Your task to perform on an android device: turn off location history Image 0: 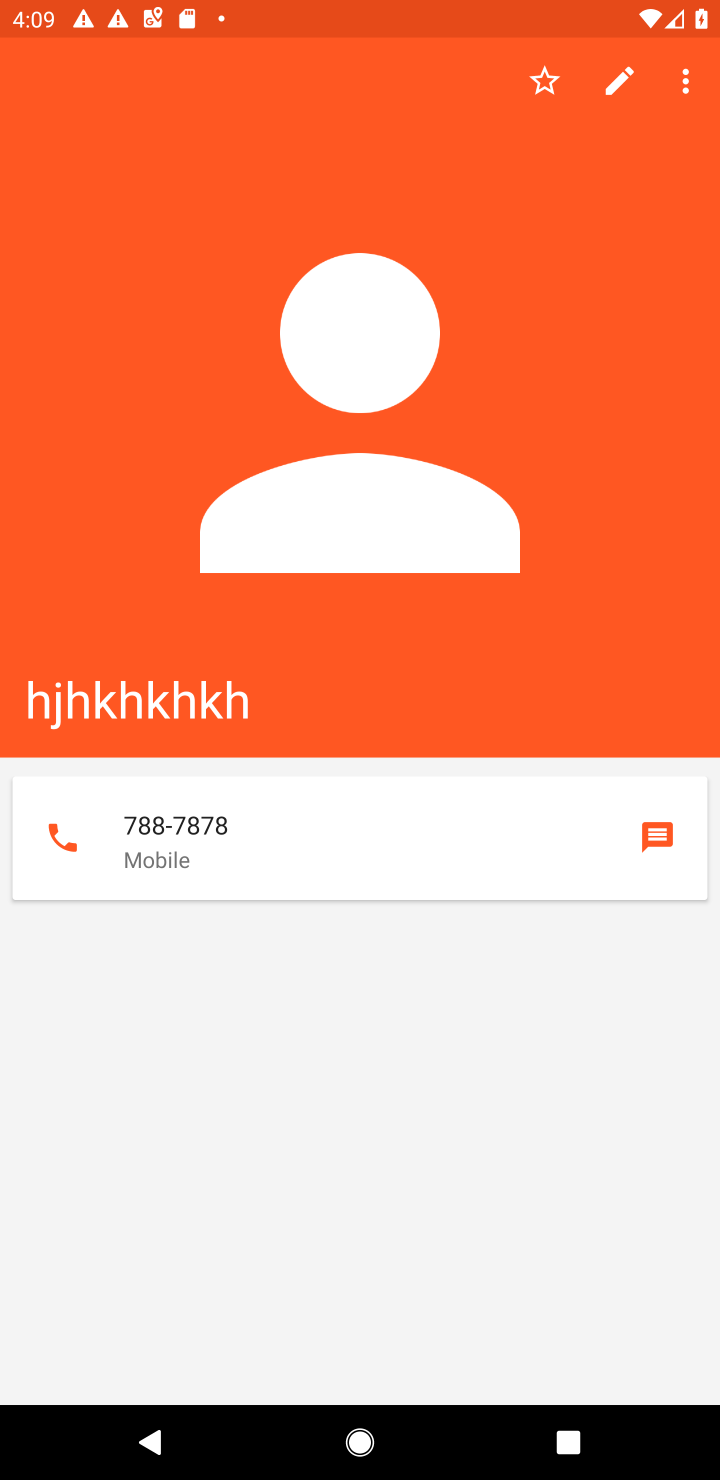
Step 0: press home button
Your task to perform on an android device: turn off location history Image 1: 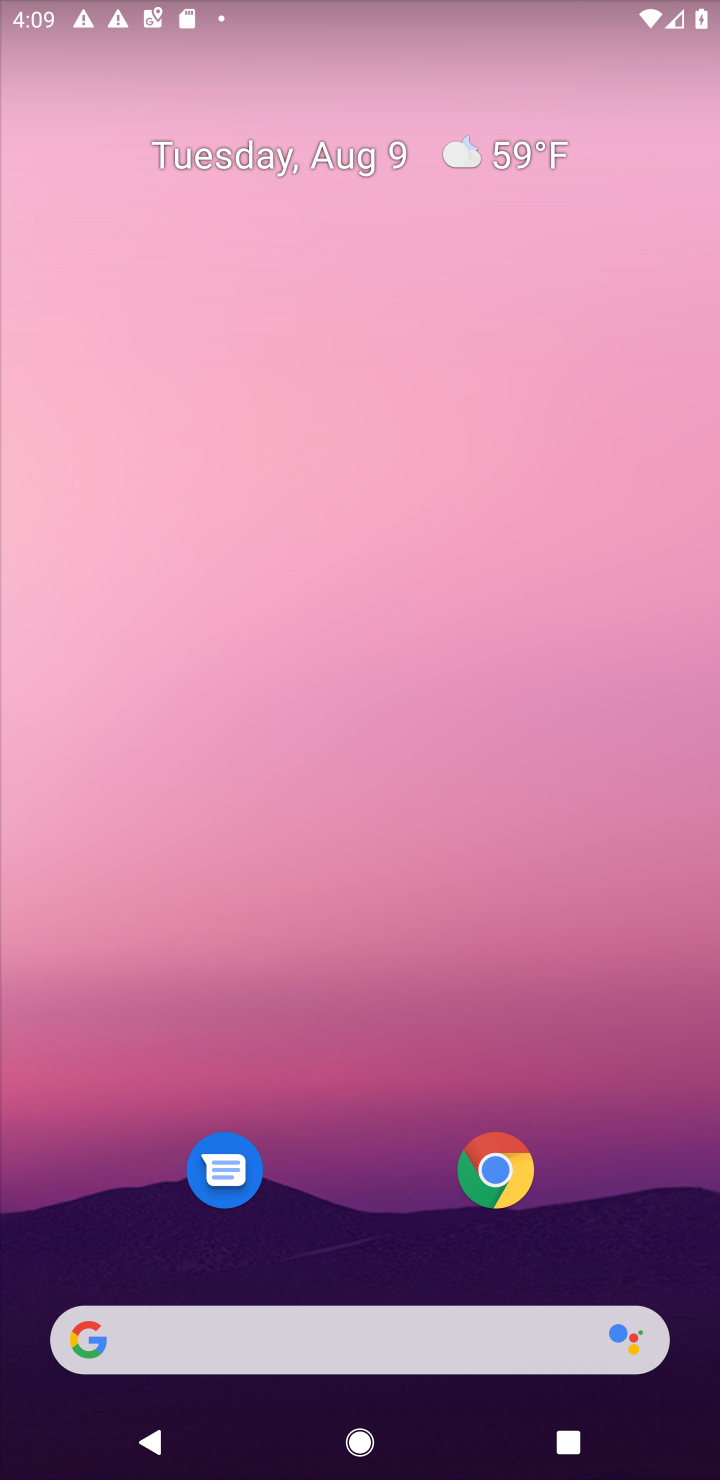
Step 1: drag from (335, 1203) to (265, 0)
Your task to perform on an android device: turn off location history Image 2: 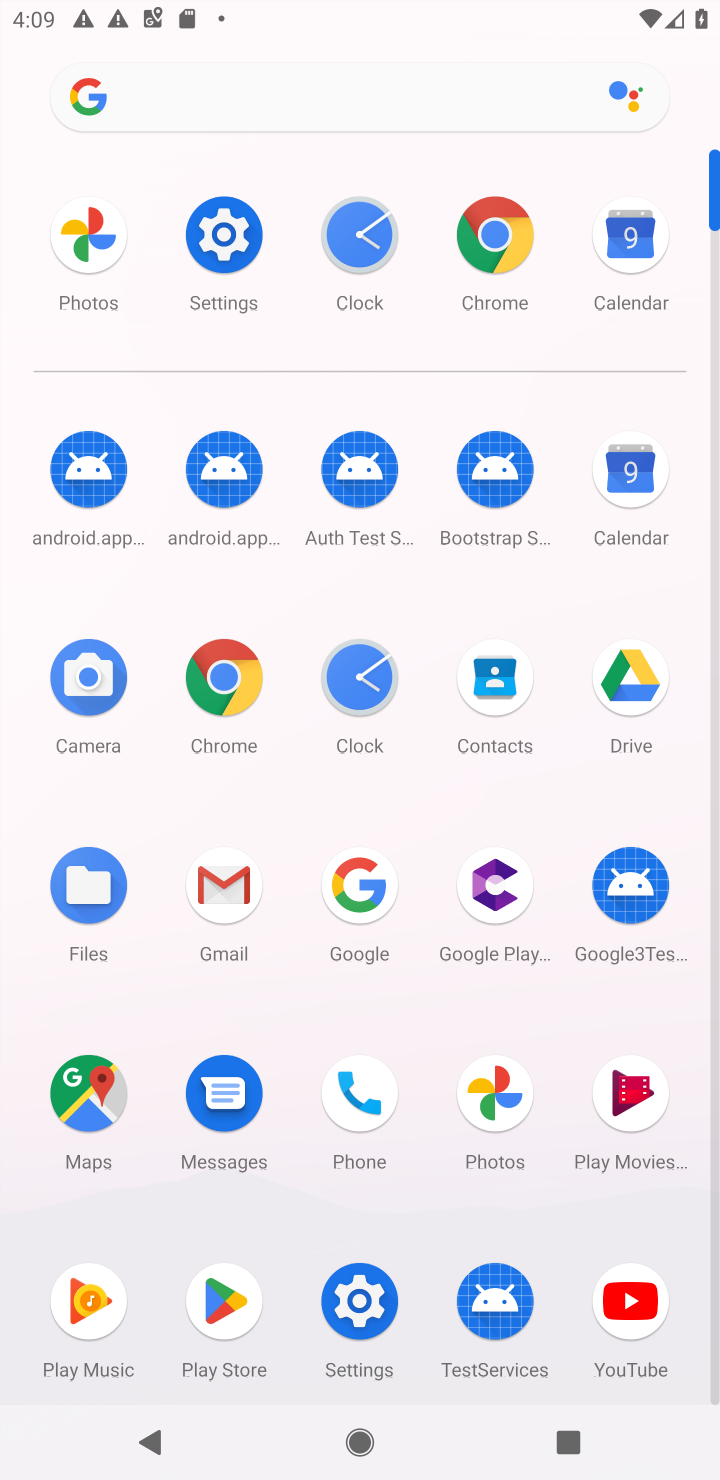
Step 2: click (241, 224)
Your task to perform on an android device: turn off location history Image 3: 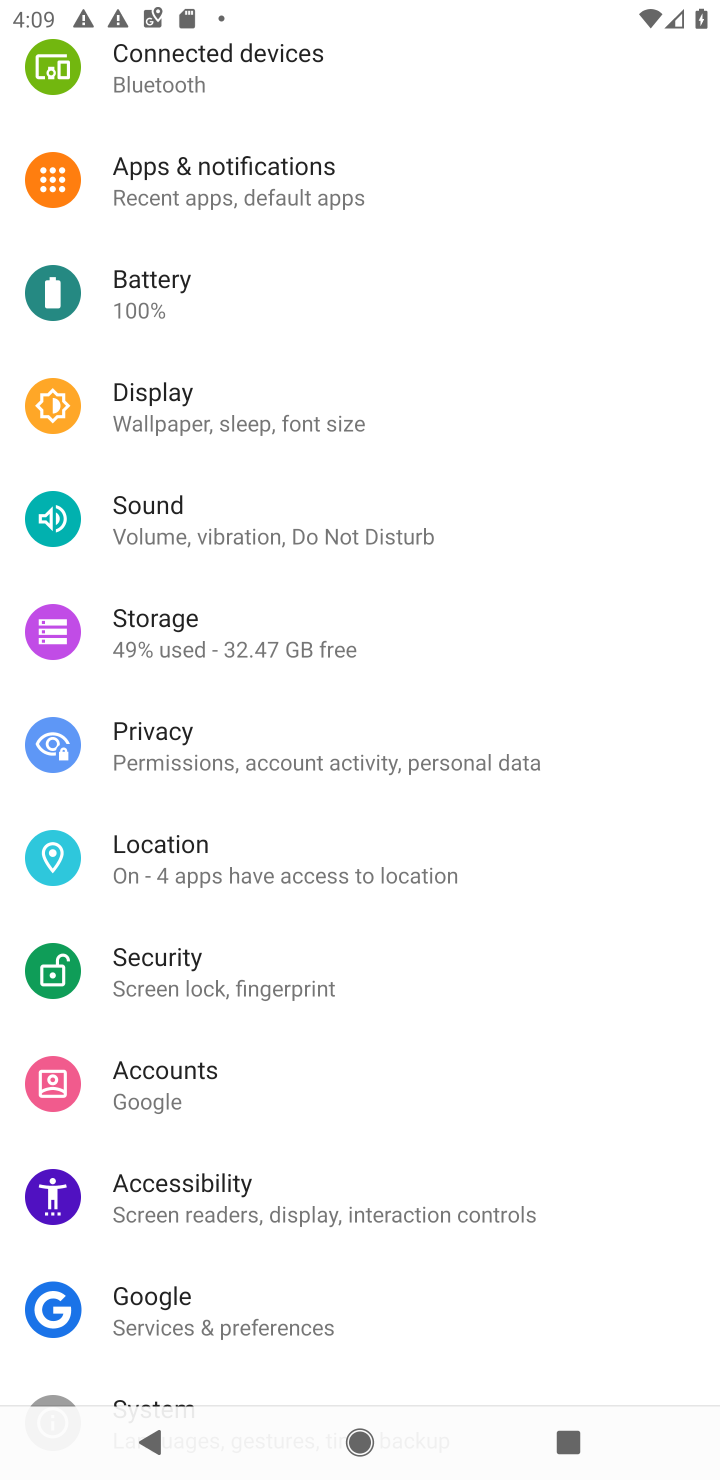
Step 3: click (186, 835)
Your task to perform on an android device: turn off location history Image 4: 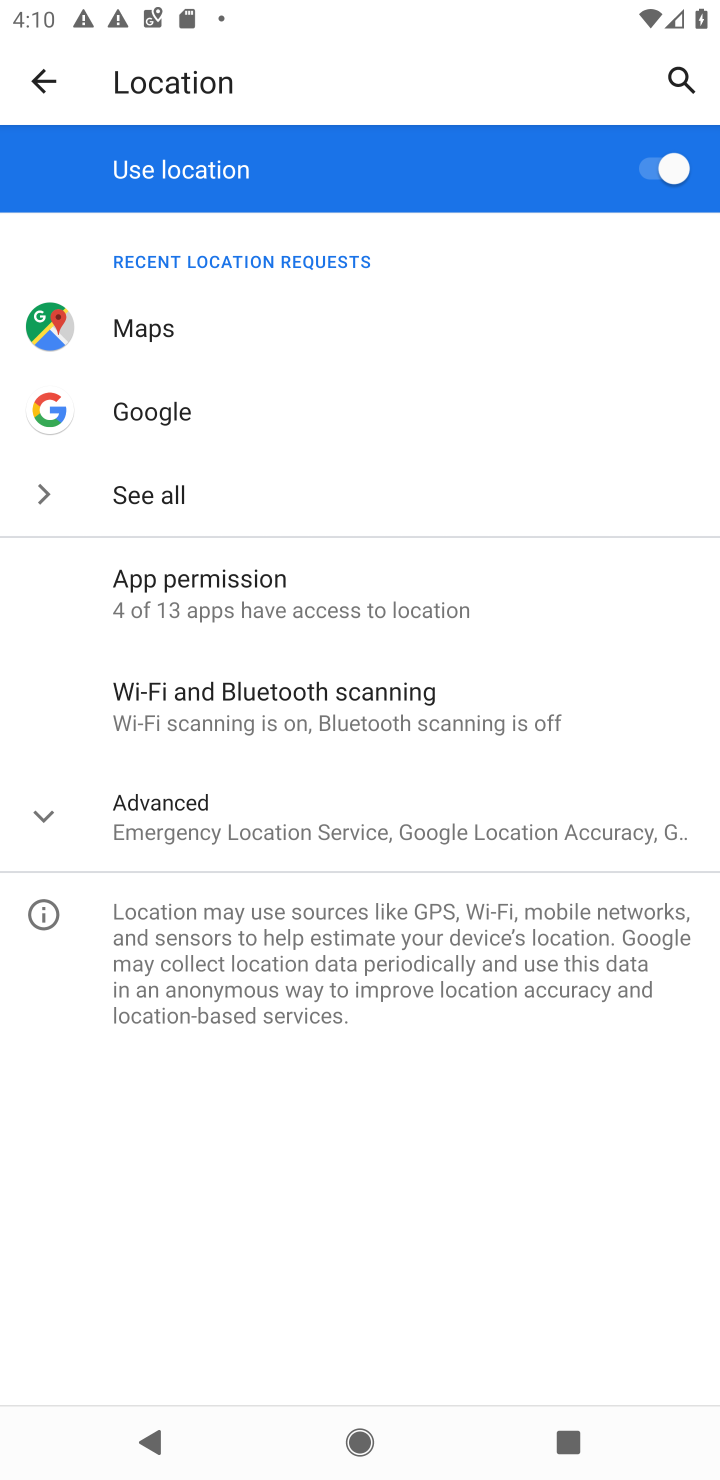
Step 4: click (27, 809)
Your task to perform on an android device: turn off location history Image 5: 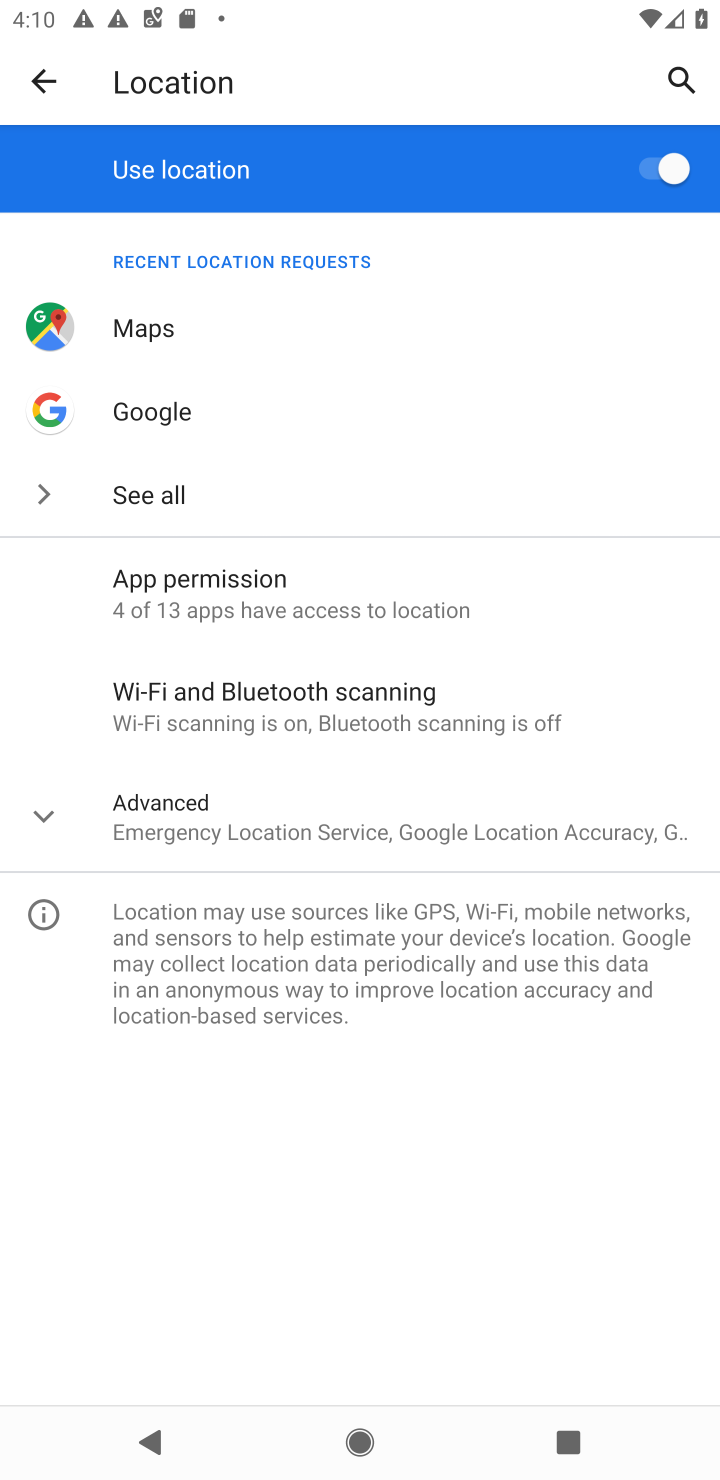
Step 5: click (45, 813)
Your task to perform on an android device: turn off location history Image 6: 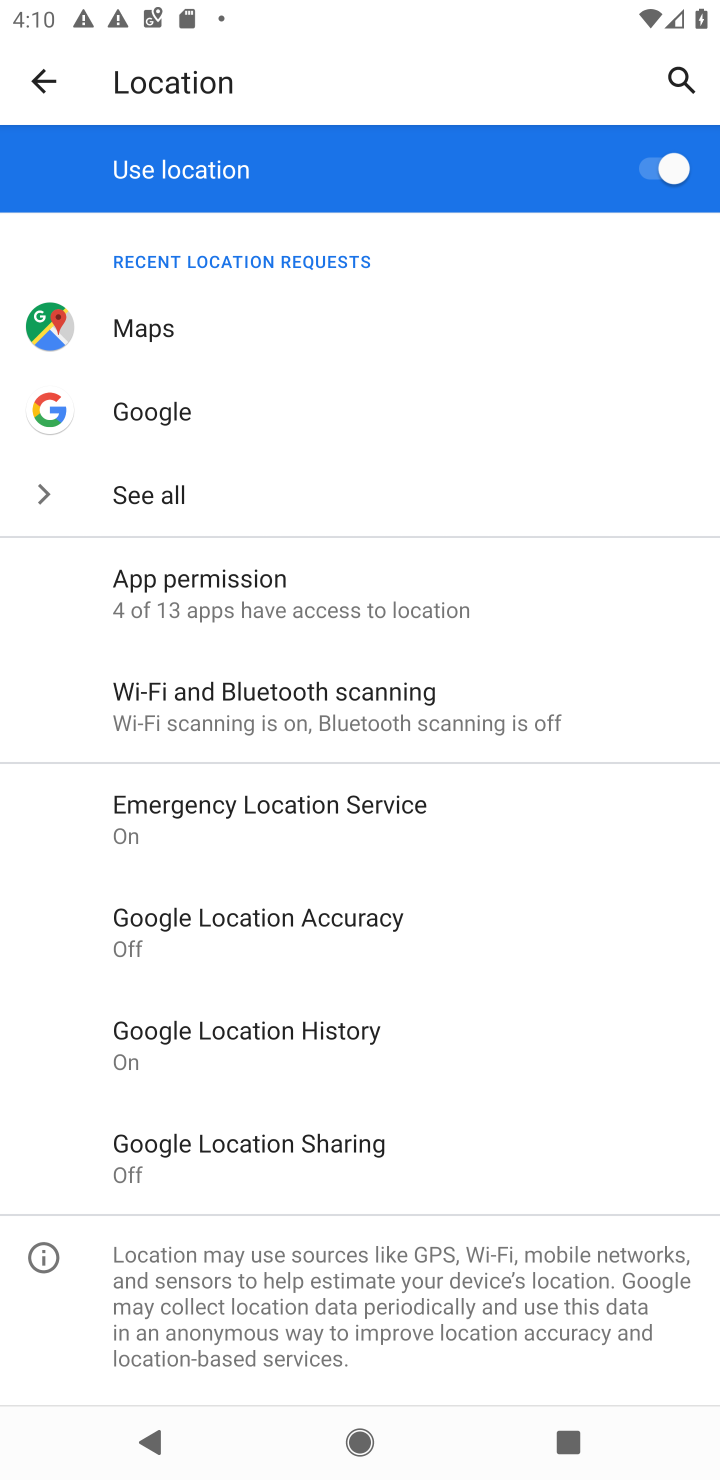
Step 6: click (350, 1031)
Your task to perform on an android device: turn off location history Image 7: 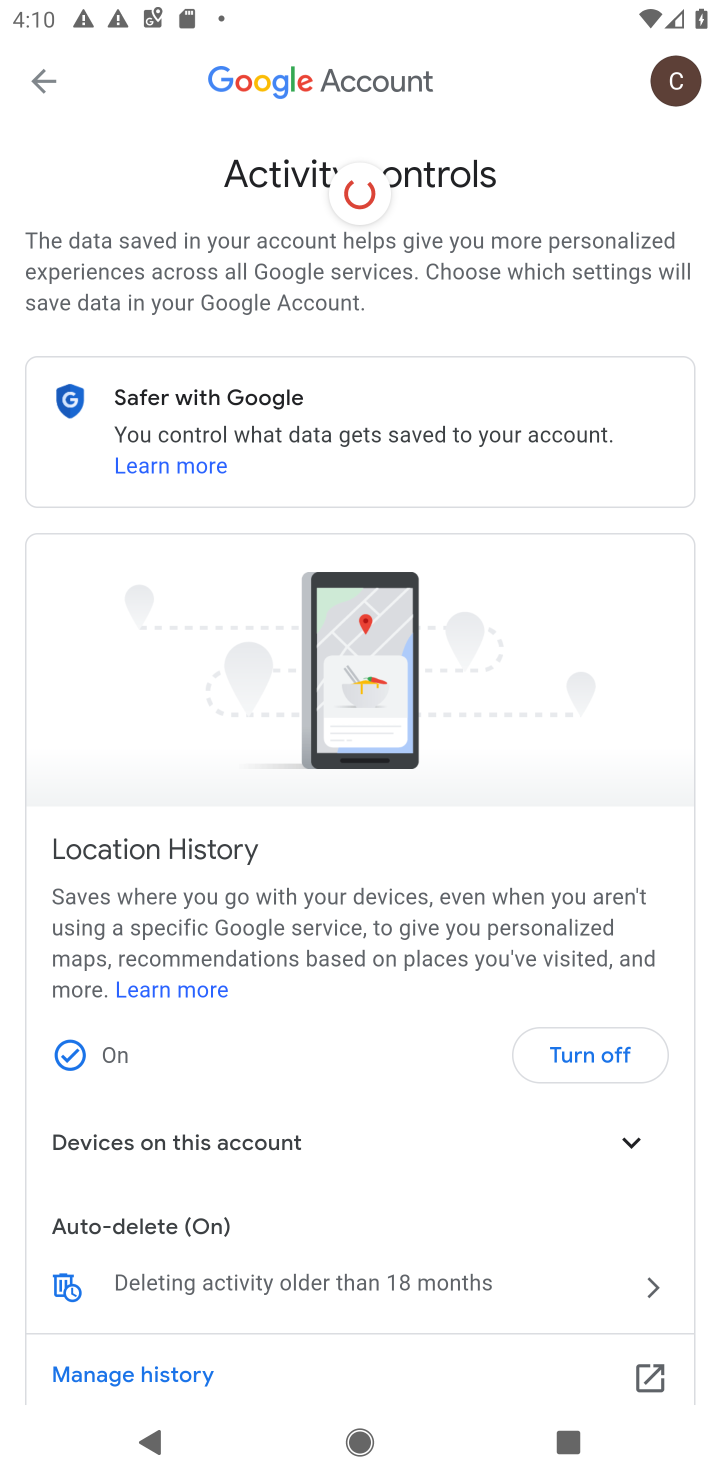
Step 7: click (590, 1045)
Your task to perform on an android device: turn off location history Image 8: 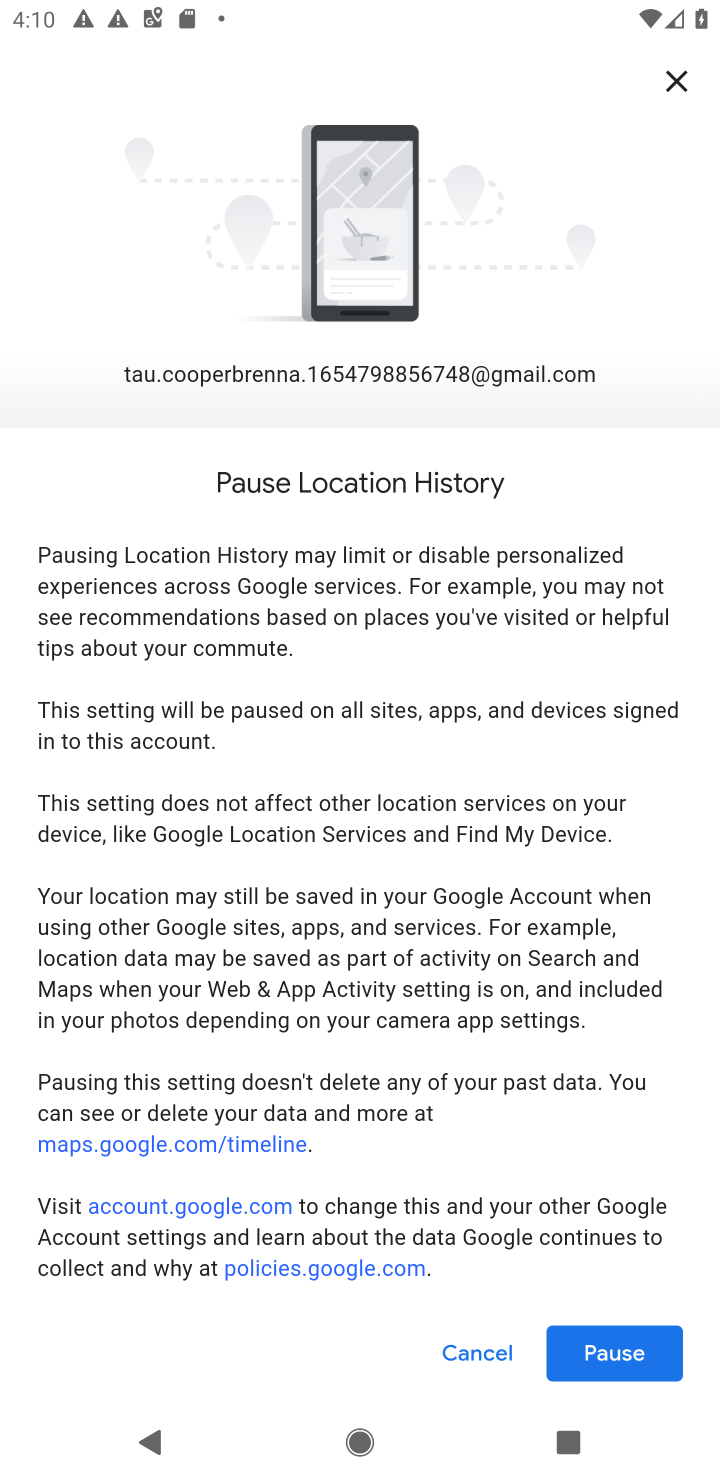
Step 8: click (618, 1349)
Your task to perform on an android device: turn off location history Image 9: 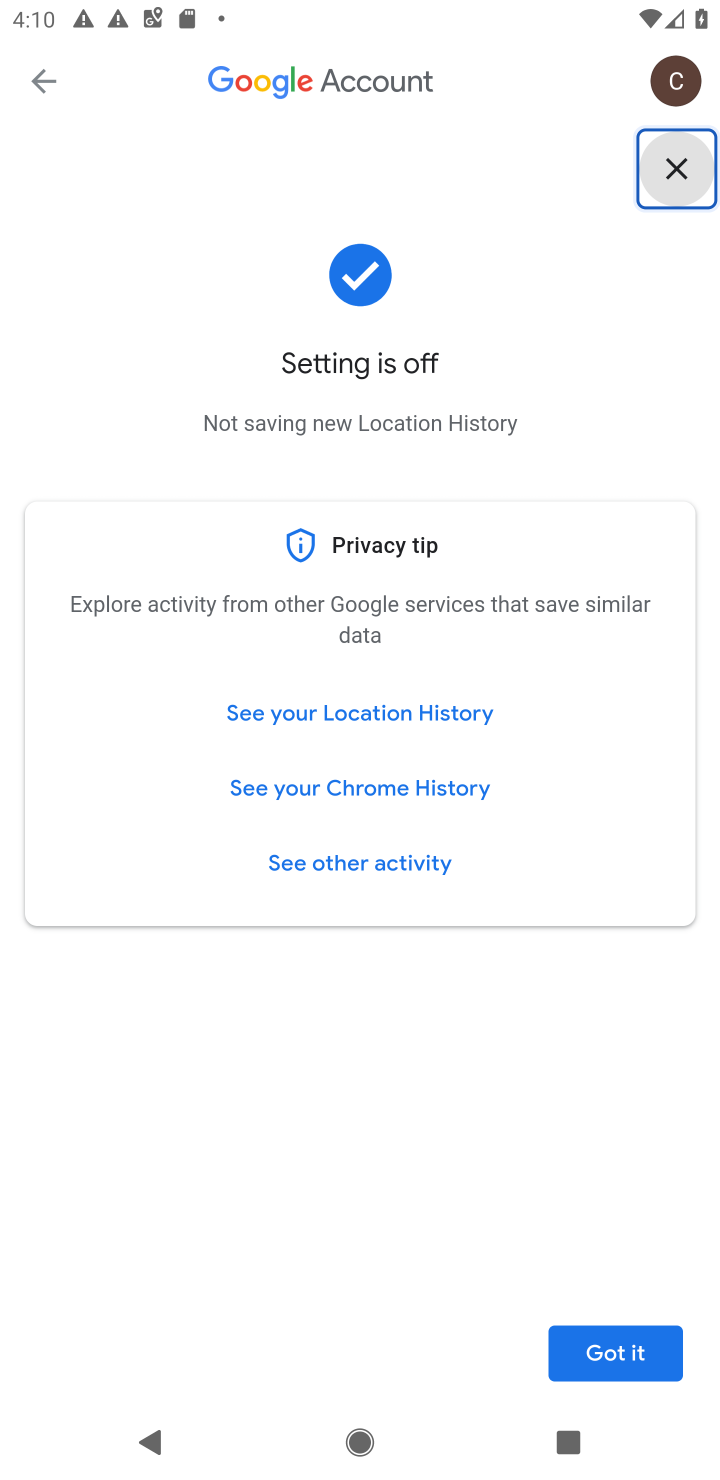
Step 9: click (636, 1358)
Your task to perform on an android device: turn off location history Image 10: 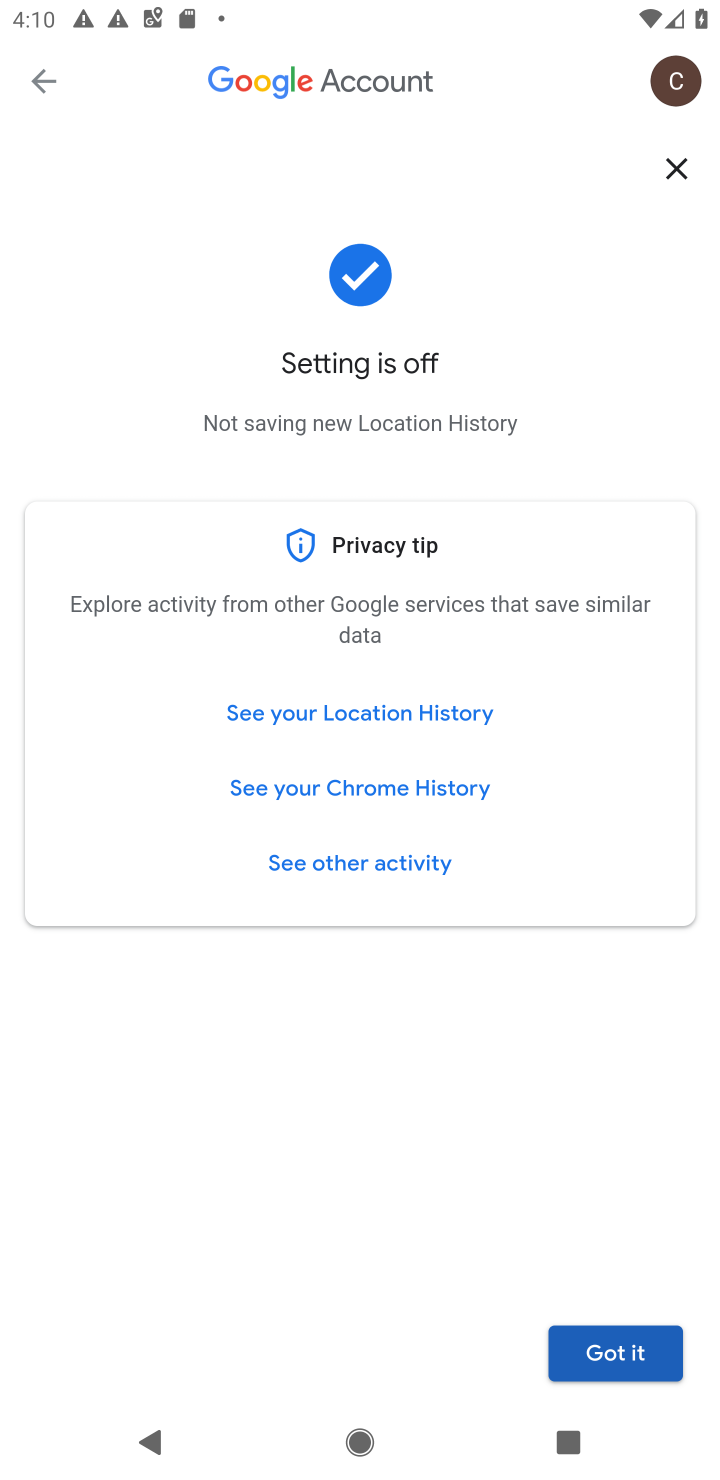
Step 10: click (651, 1341)
Your task to perform on an android device: turn off location history Image 11: 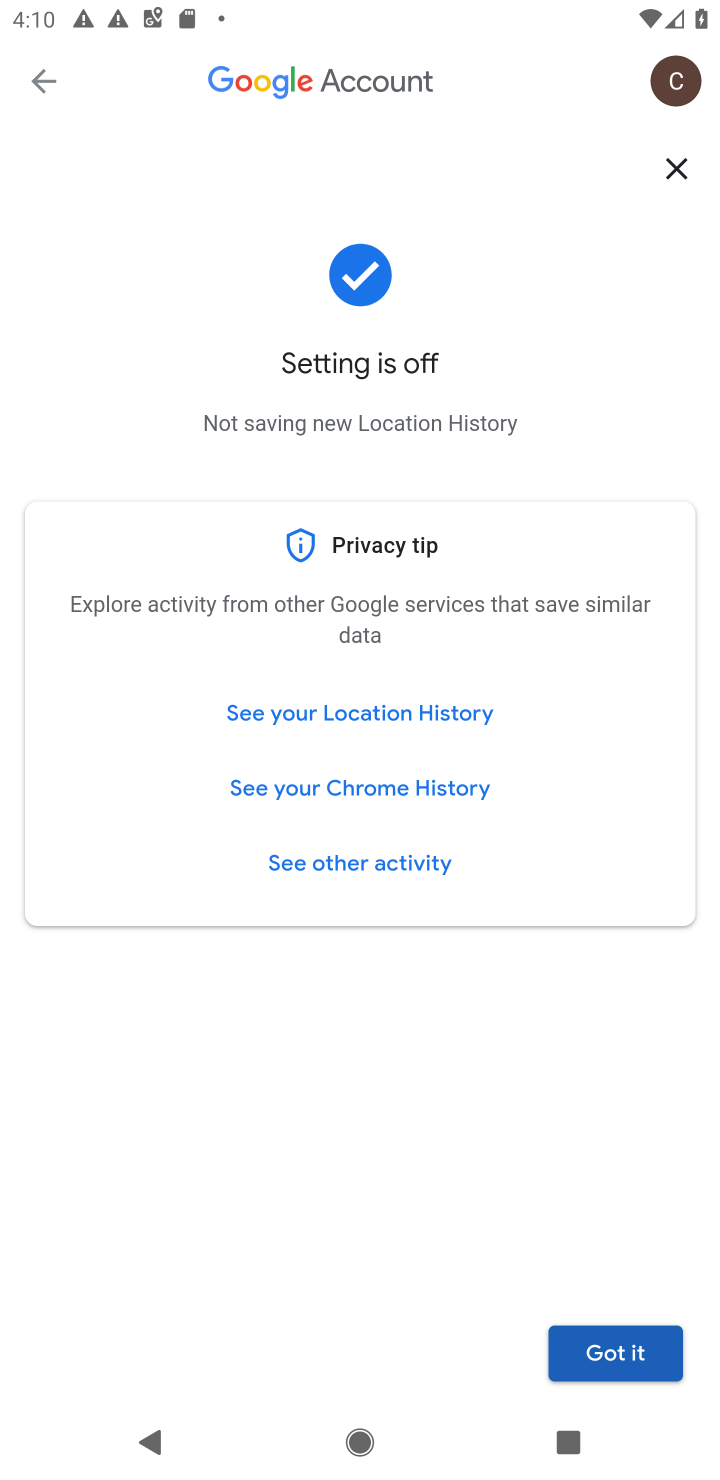
Step 11: task complete